Your task to perform on an android device: Do I have any events tomorrow? Image 0: 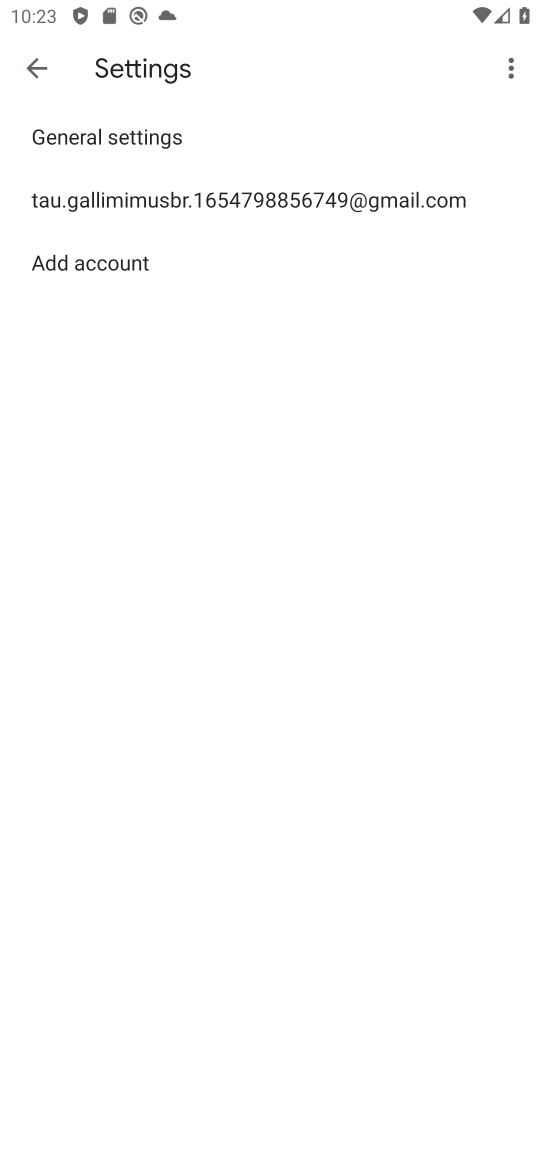
Step 0: press home button
Your task to perform on an android device: Do I have any events tomorrow? Image 1: 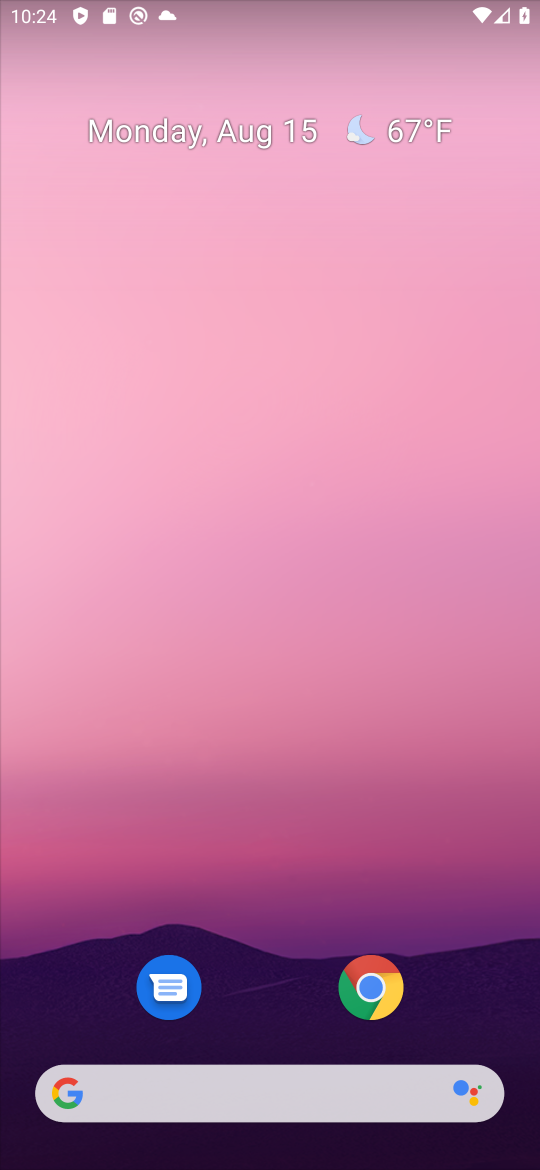
Step 1: drag from (292, 1074) to (241, 120)
Your task to perform on an android device: Do I have any events tomorrow? Image 2: 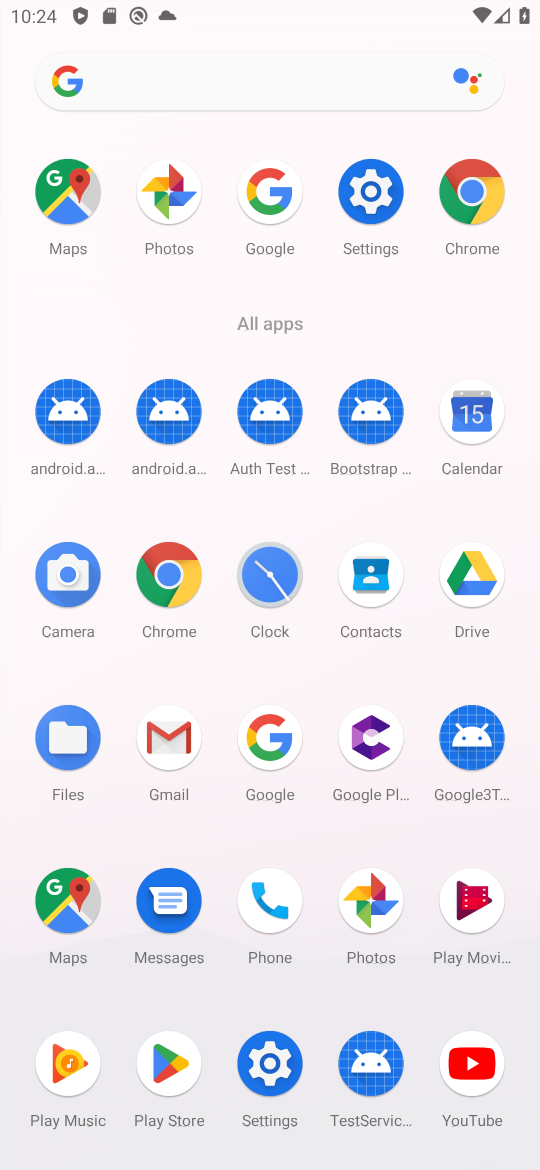
Step 2: click (482, 423)
Your task to perform on an android device: Do I have any events tomorrow? Image 3: 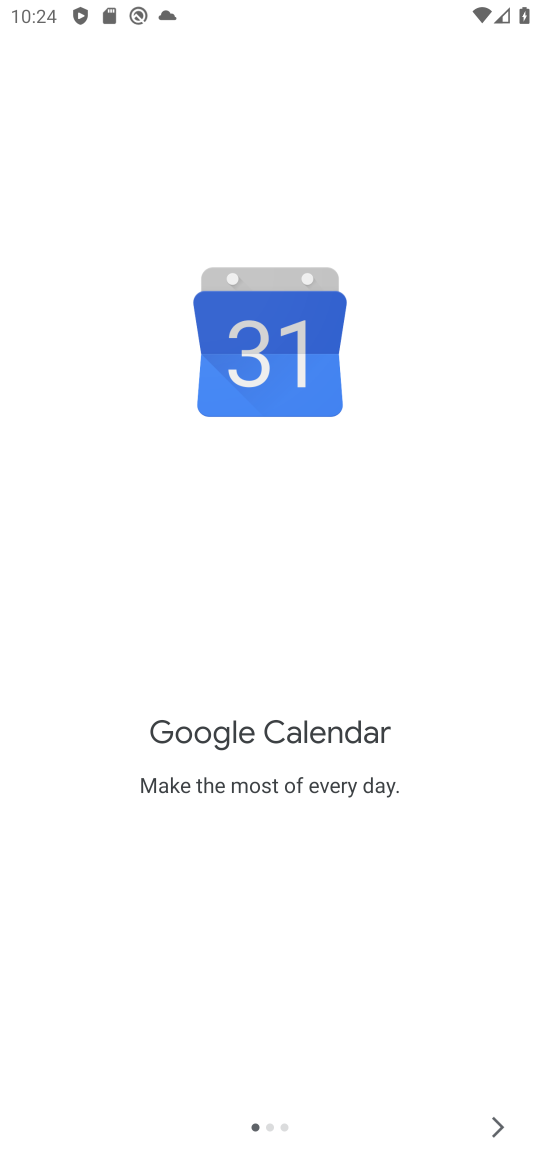
Step 3: click (499, 1118)
Your task to perform on an android device: Do I have any events tomorrow? Image 4: 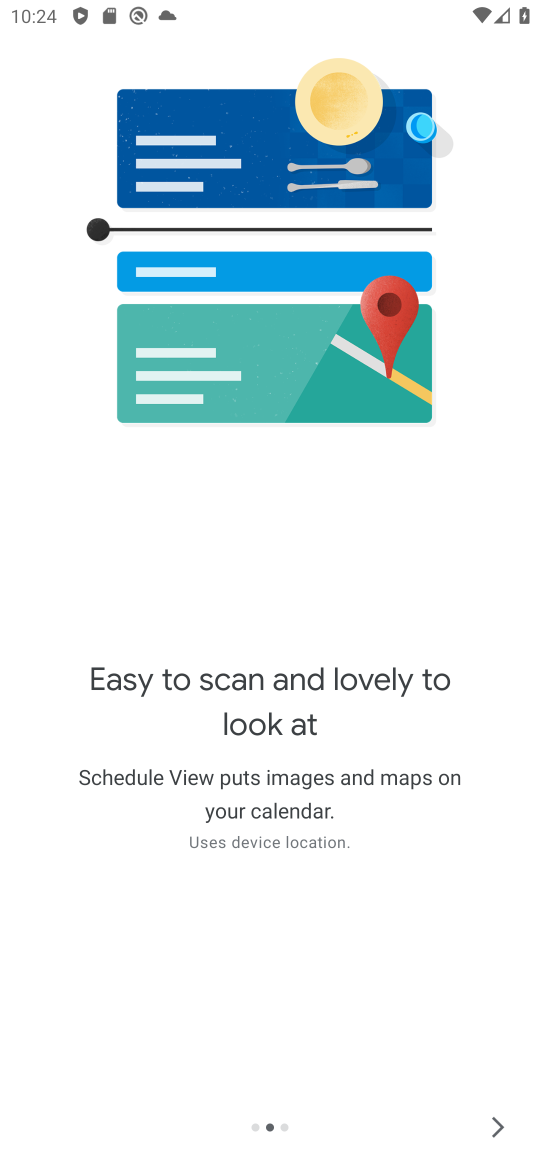
Step 4: click (485, 1131)
Your task to perform on an android device: Do I have any events tomorrow? Image 5: 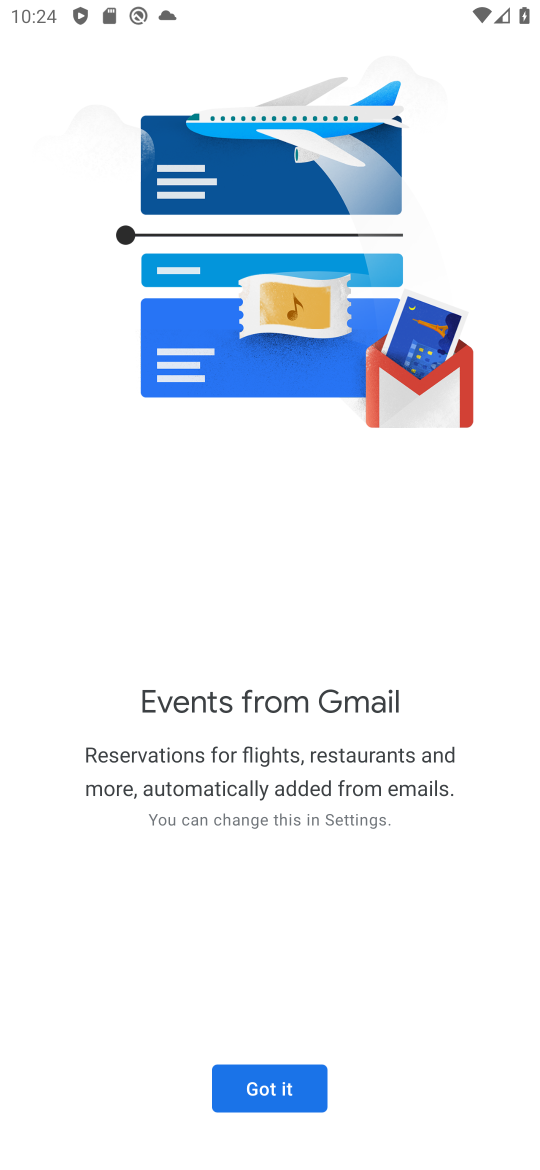
Step 5: click (308, 1099)
Your task to perform on an android device: Do I have any events tomorrow? Image 6: 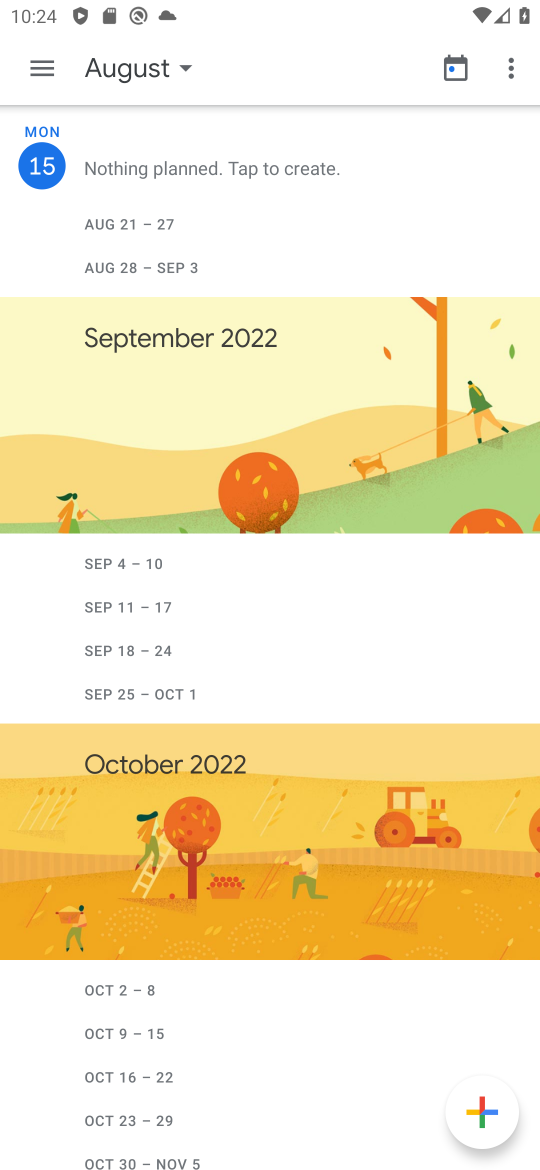
Step 6: click (19, 64)
Your task to perform on an android device: Do I have any events tomorrow? Image 7: 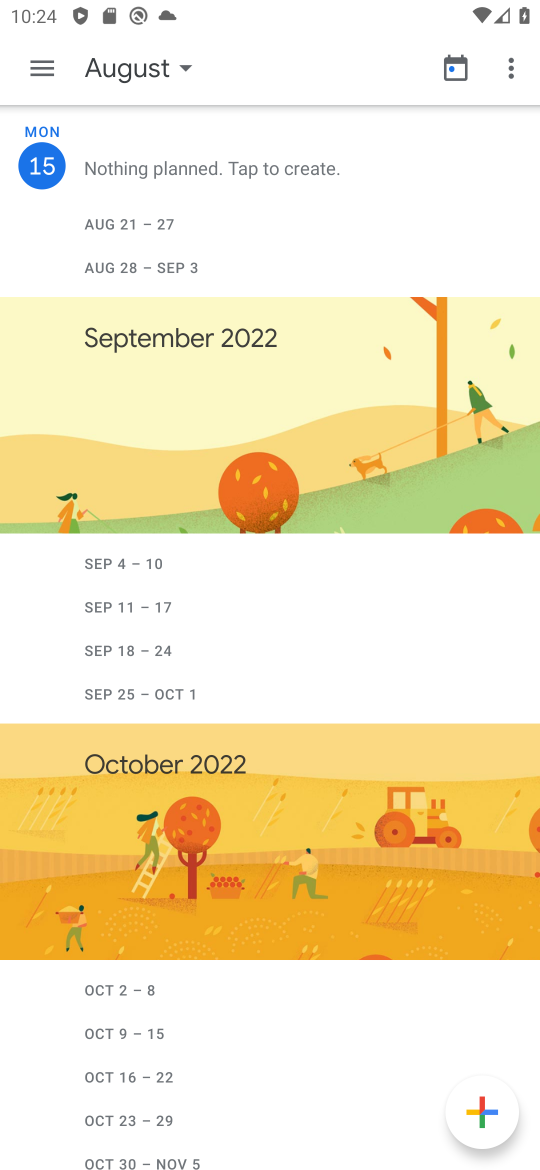
Step 7: click (460, 76)
Your task to perform on an android device: Do I have any events tomorrow? Image 8: 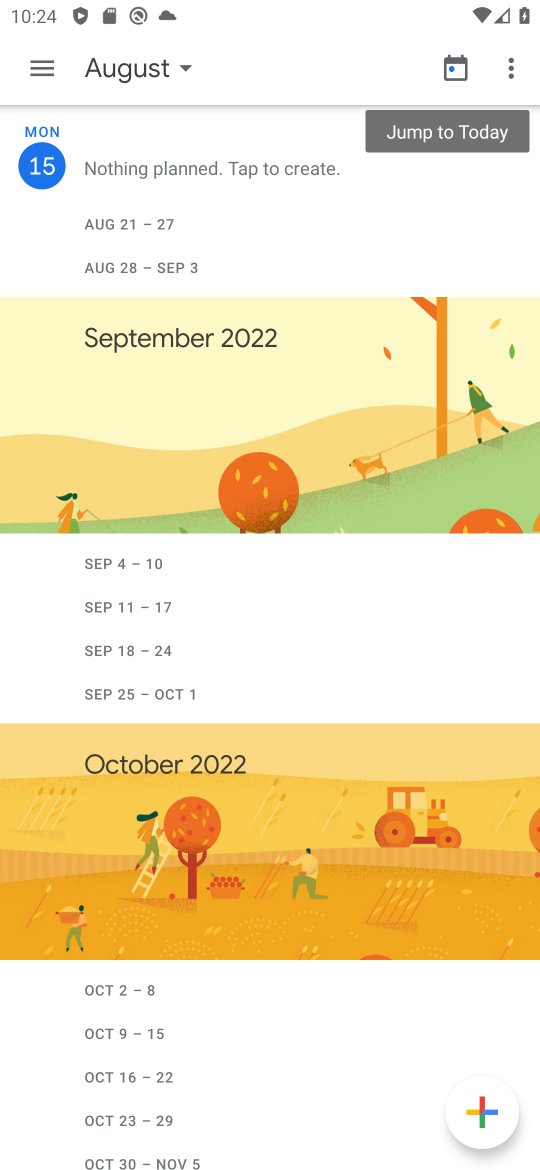
Step 8: click (460, 69)
Your task to perform on an android device: Do I have any events tomorrow? Image 9: 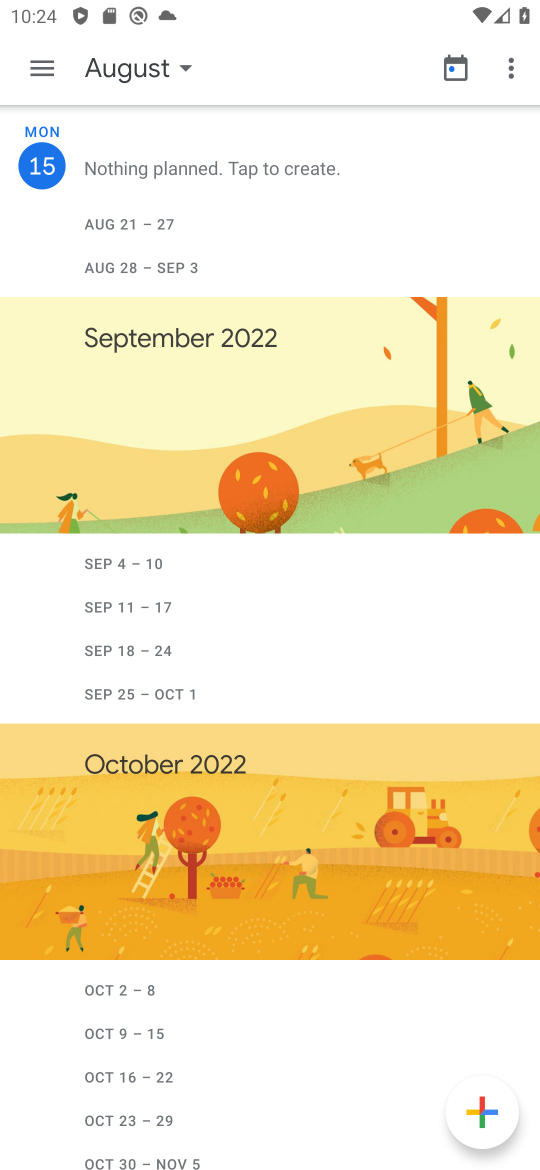
Step 9: click (459, 70)
Your task to perform on an android device: Do I have any events tomorrow? Image 10: 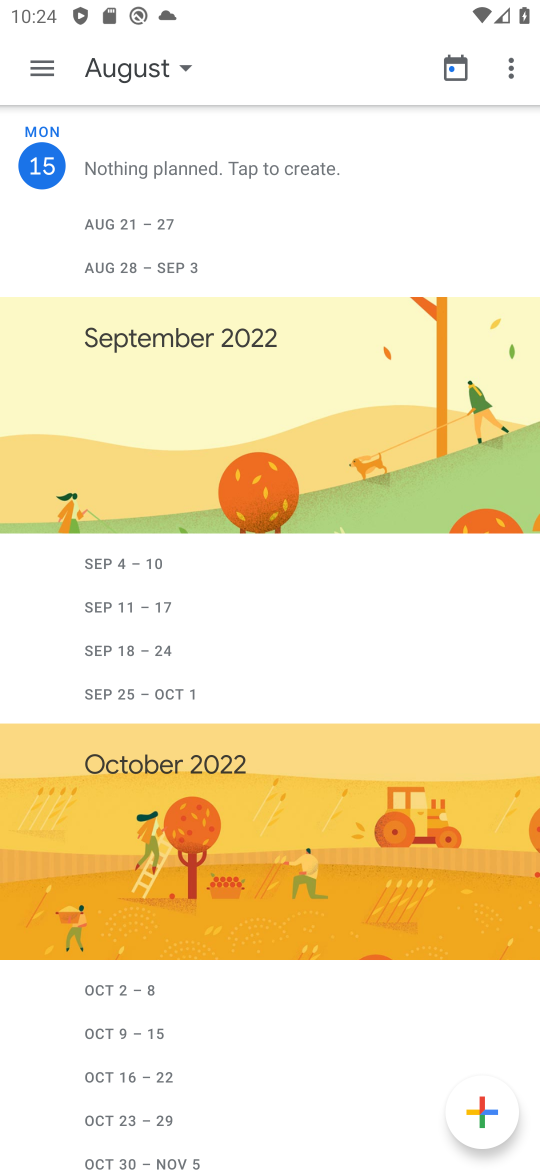
Step 10: click (459, 70)
Your task to perform on an android device: Do I have any events tomorrow? Image 11: 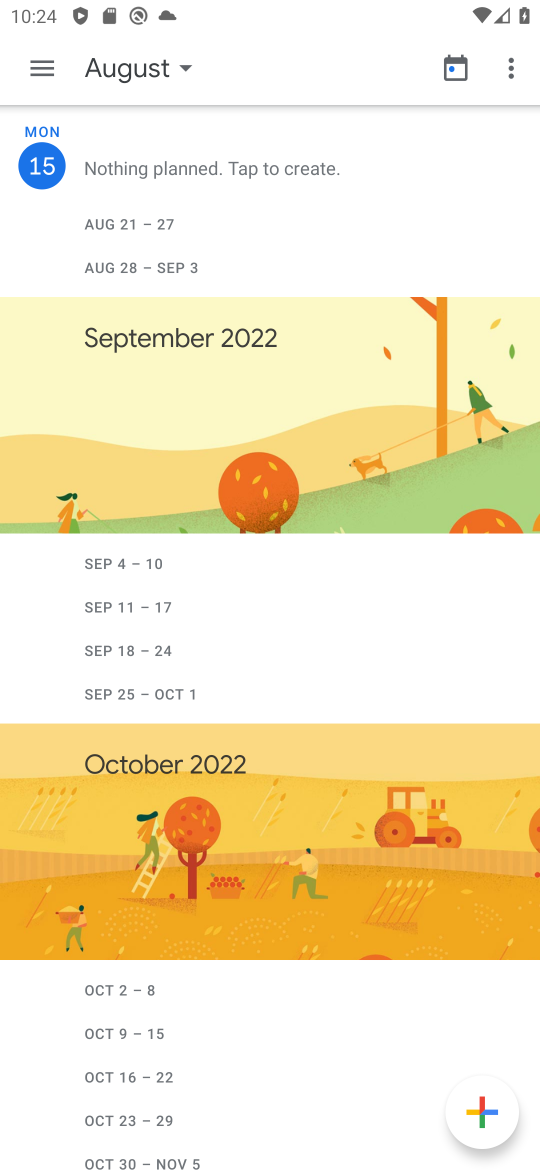
Step 11: click (459, 70)
Your task to perform on an android device: Do I have any events tomorrow? Image 12: 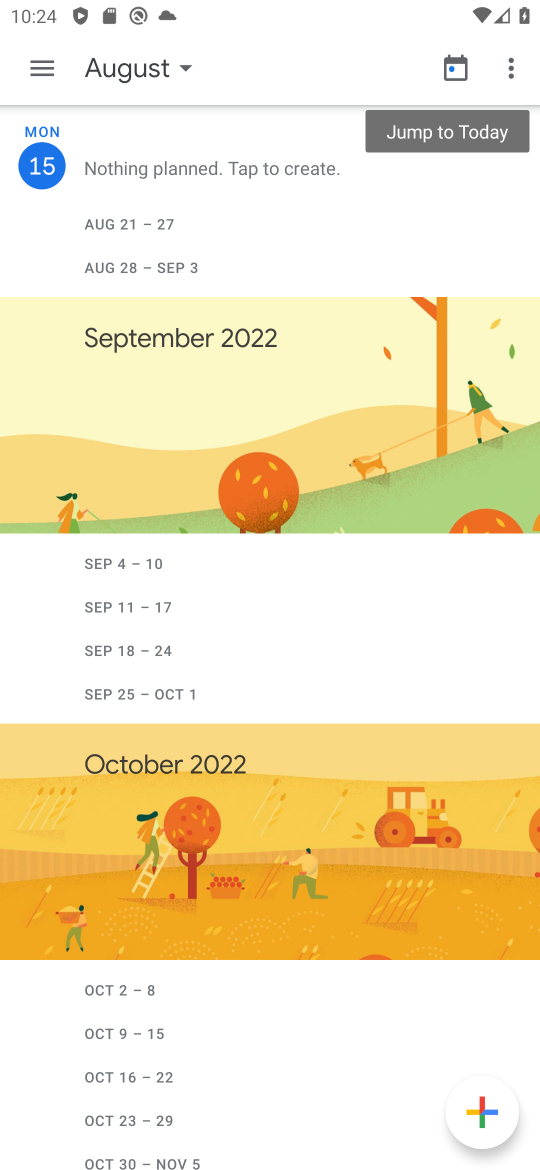
Step 12: click (459, 70)
Your task to perform on an android device: Do I have any events tomorrow? Image 13: 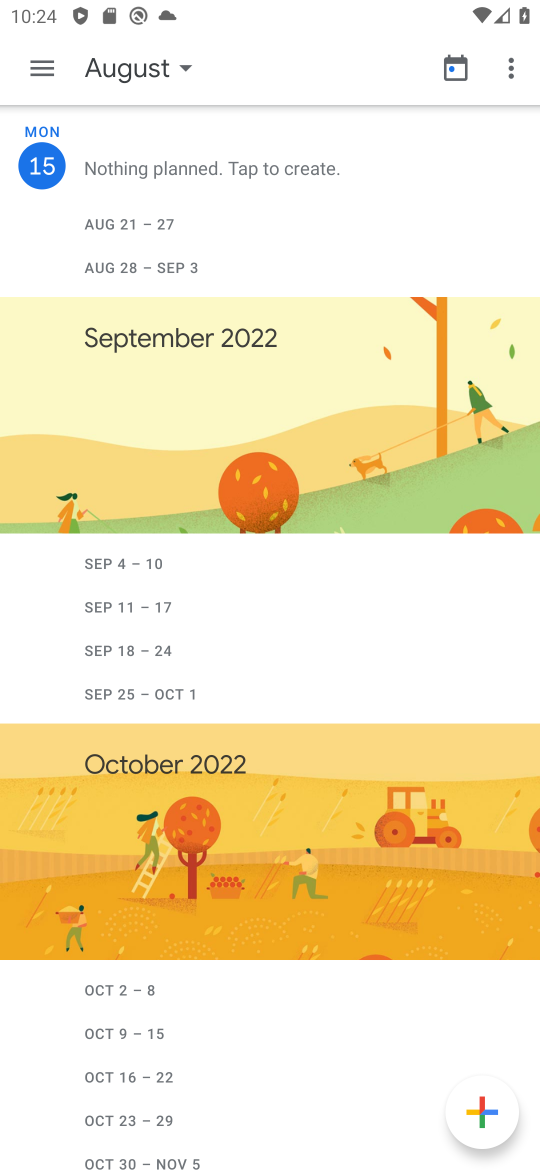
Step 13: click (36, 84)
Your task to perform on an android device: Do I have any events tomorrow? Image 14: 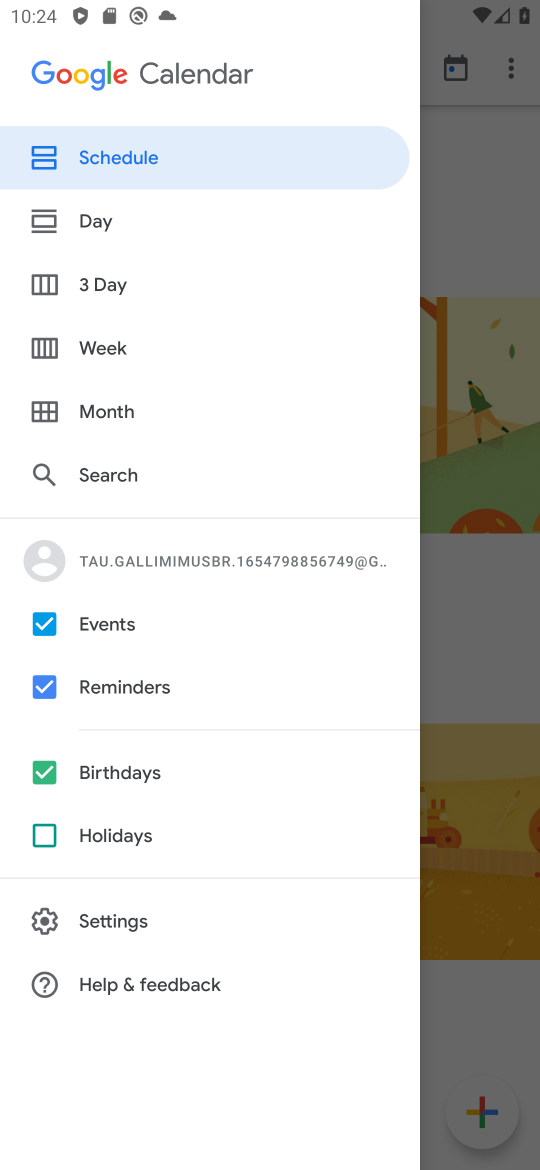
Step 14: click (110, 367)
Your task to perform on an android device: Do I have any events tomorrow? Image 15: 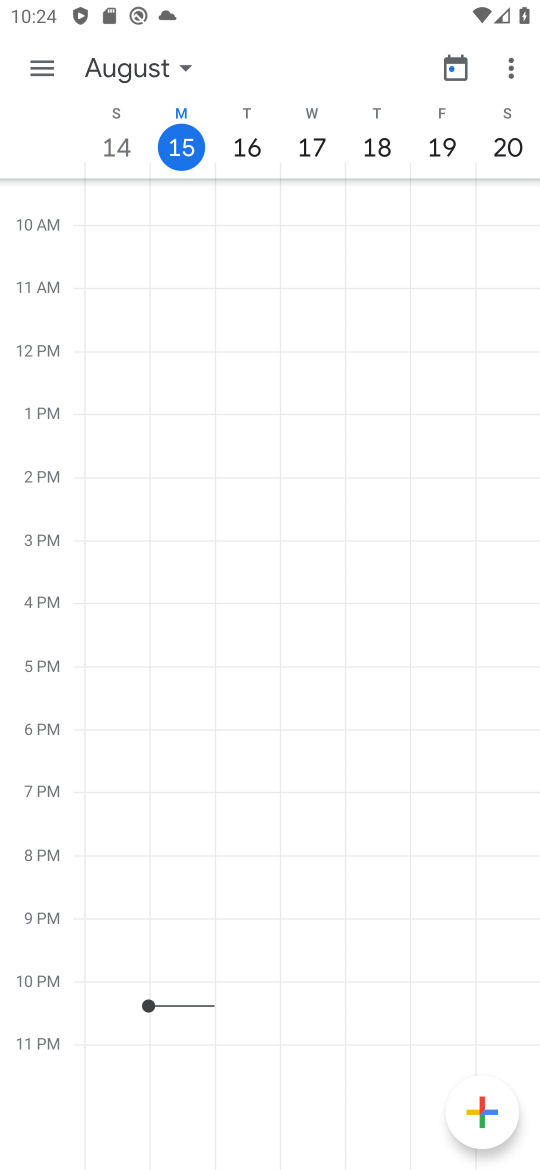
Step 15: click (241, 147)
Your task to perform on an android device: Do I have any events tomorrow? Image 16: 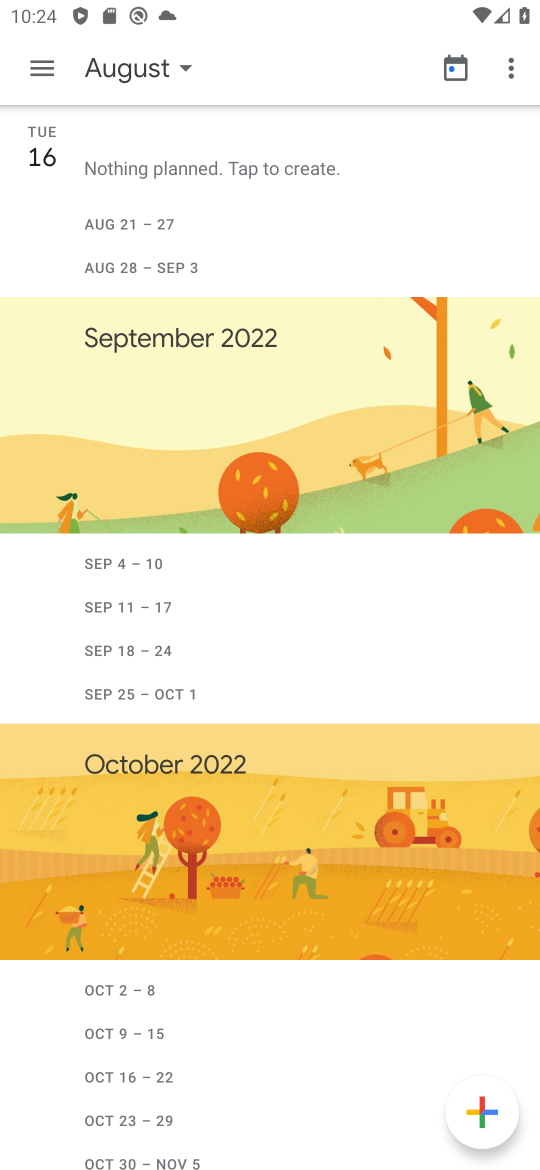
Step 16: task complete